Your task to perform on an android device: find photos in the google photos app Image 0: 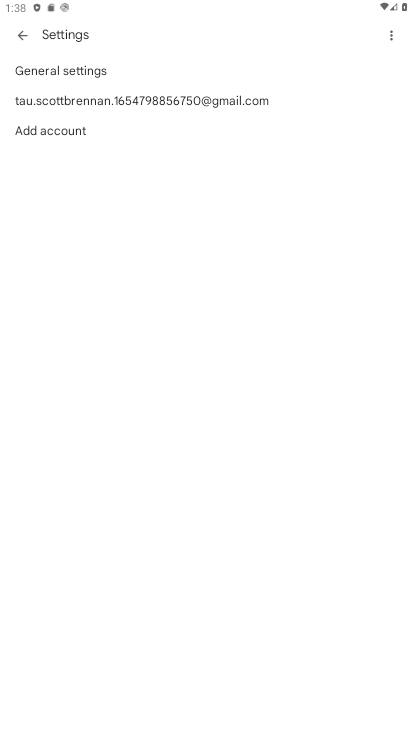
Step 0: task complete